Your task to perform on an android device: see sites visited before in the chrome app Image 0: 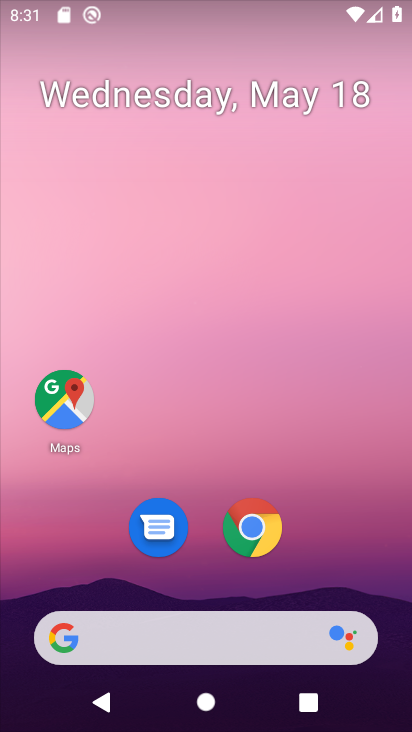
Step 0: drag from (309, 558) to (240, 27)
Your task to perform on an android device: see sites visited before in the chrome app Image 1: 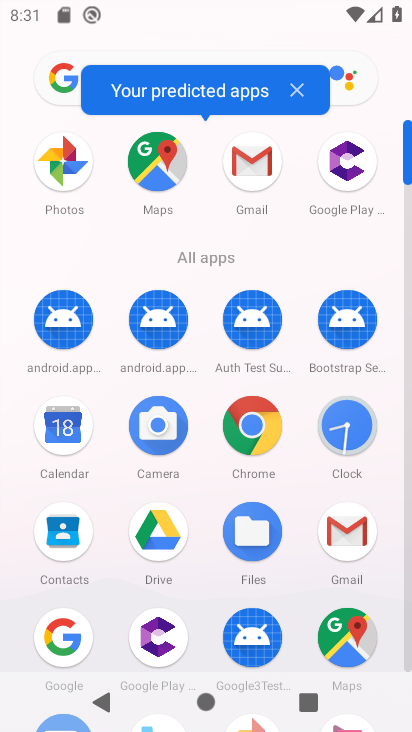
Step 1: click (247, 477)
Your task to perform on an android device: see sites visited before in the chrome app Image 2: 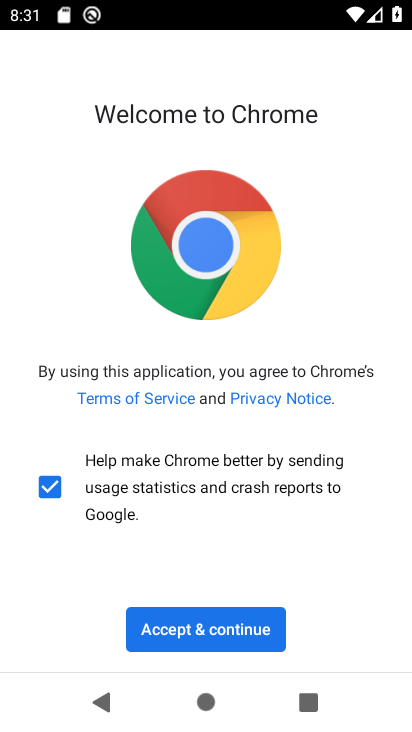
Step 2: click (194, 626)
Your task to perform on an android device: see sites visited before in the chrome app Image 3: 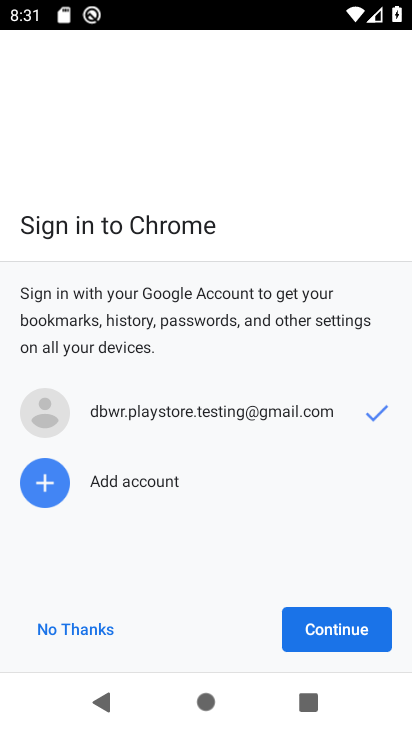
Step 3: click (364, 626)
Your task to perform on an android device: see sites visited before in the chrome app Image 4: 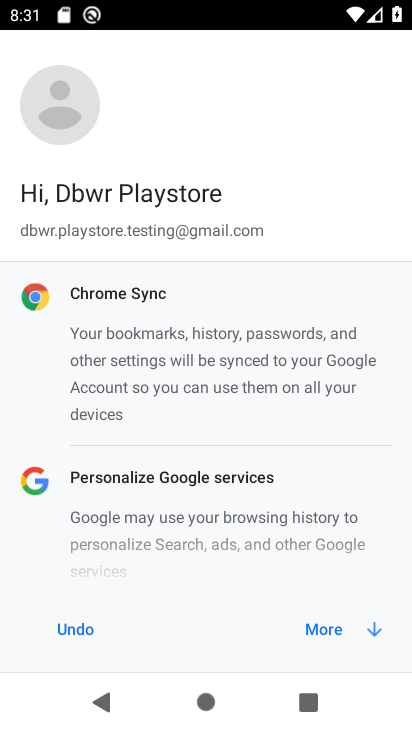
Step 4: click (319, 629)
Your task to perform on an android device: see sites visited before in the chrome app Image 5: 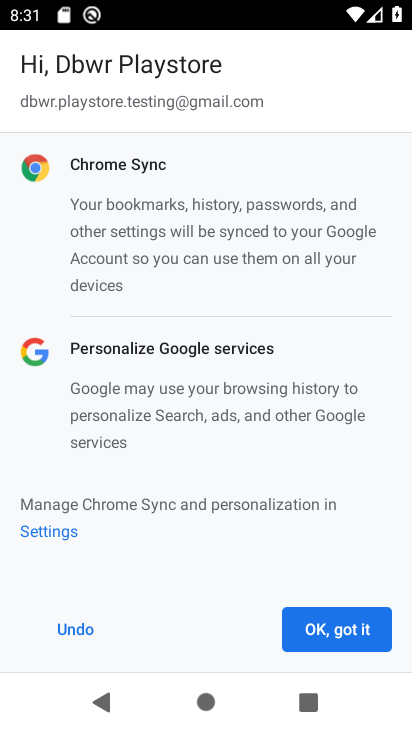
Step 5: click (319, 629)
Your task to perform on an android device: see sites visited before in the chrome app Image 6: 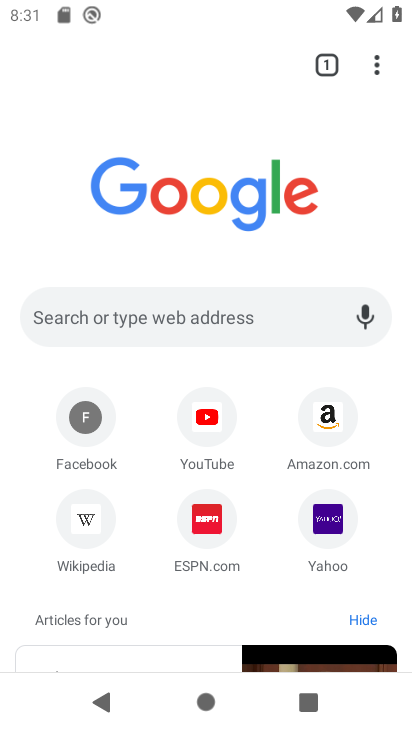
Step 6: click (379, 68)
Your task to perform on an android device: see sites visited before in the chrome app Image 7: 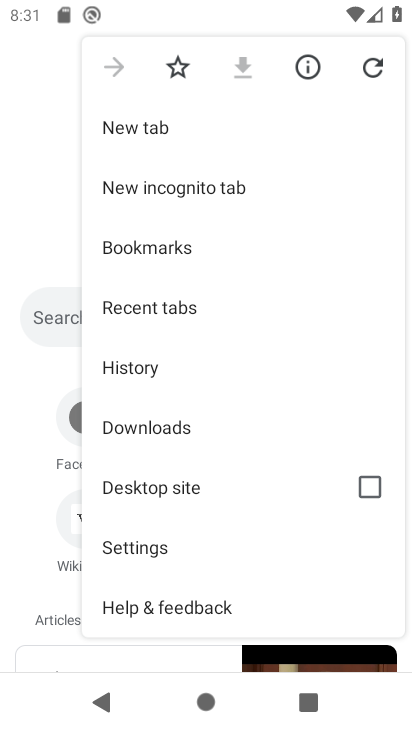
Step 7: click (160, 367)
Your task to perform on an android device: see sites visited before in the chrome app Image 8: 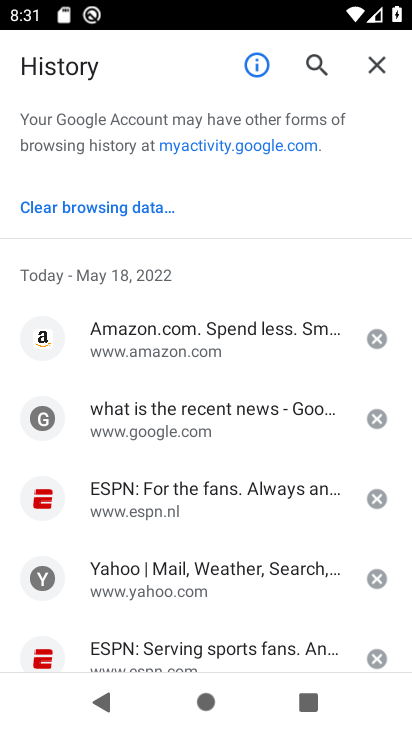
Step 8: task complete